Your task to perform on an android device: What's the weather going to be tomorrow? Image 0: 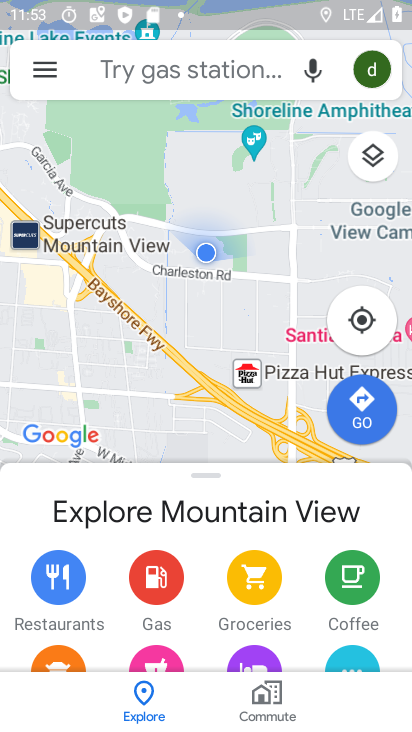
Step 0: press home button
Your task to perform on an android device: What's the weather going to be tomorrow? Image 1: 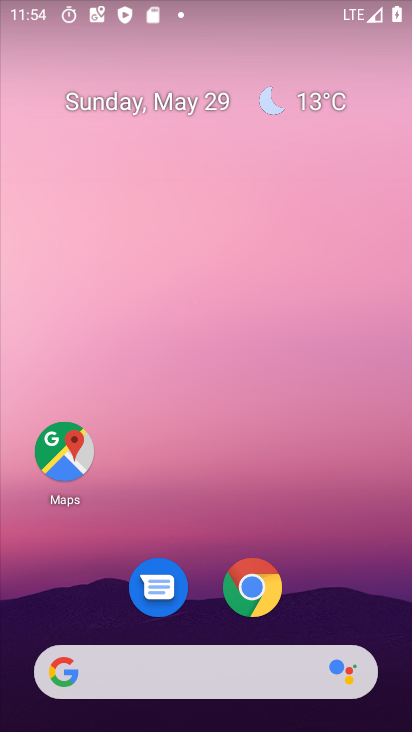
Step 1: click (335, 97)
Your task to perform on an android device: What's the weather going to be tomorrow? Image 2: 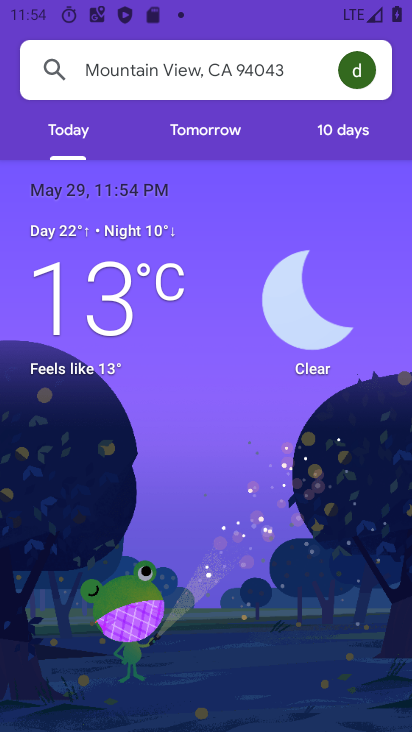
Step 2: click (185, 133)
Your task to perform on an android device: What's the weather going to be tomorrow? Image 3: 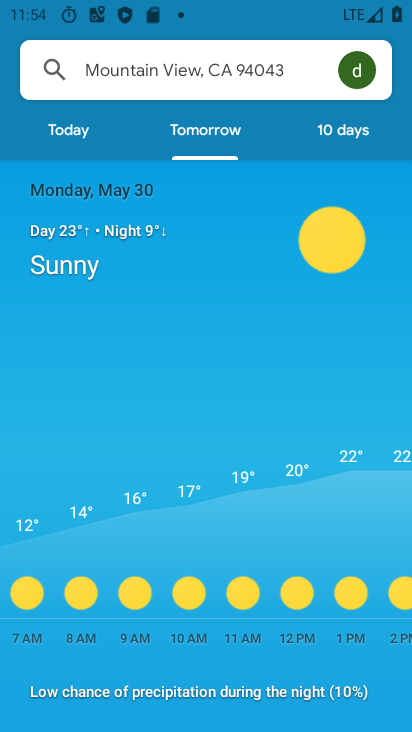
Step 3: task complete